Your task to perform on an android device: turn smart compose on in the gmail app Image 0: 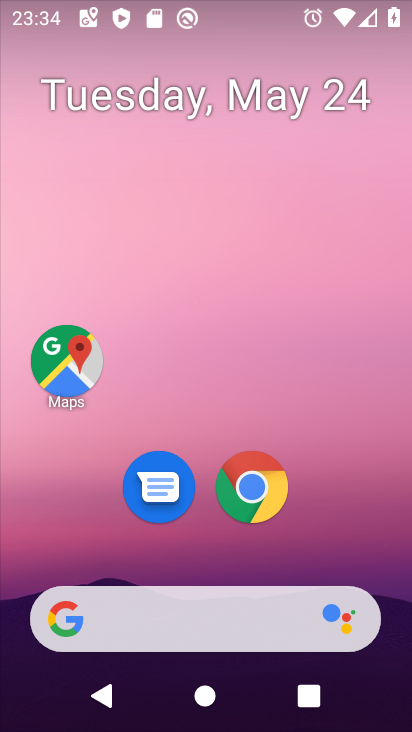
Step 0: drag from (157, 559) to (289, 4)
Your task to perform on an android device: turn smart compose on in the gmail app Image 1: 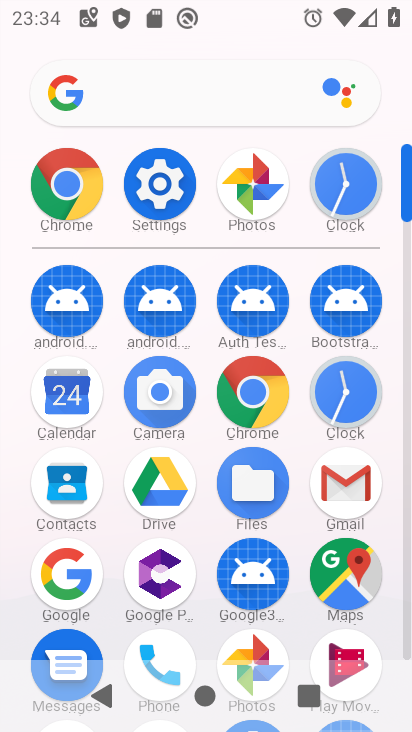
Step 1: click (344, 479)
Your task to perform on an android device: turn smart compose on in the gmail app Image 2: 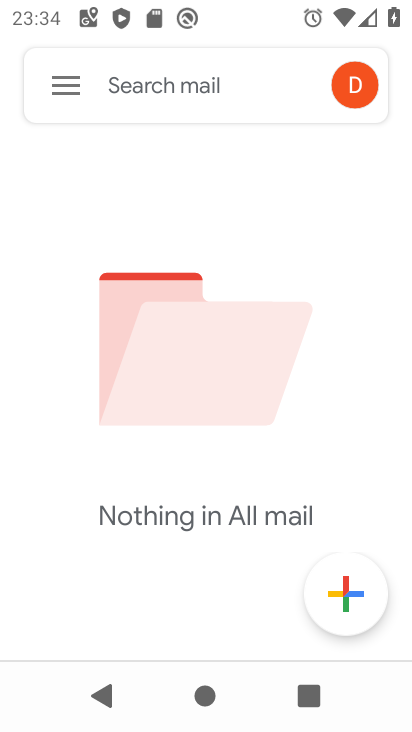
Step 2: click (57, 88)
Your task to perform on an android device: turn smart compose on in the gmail app Image 3: 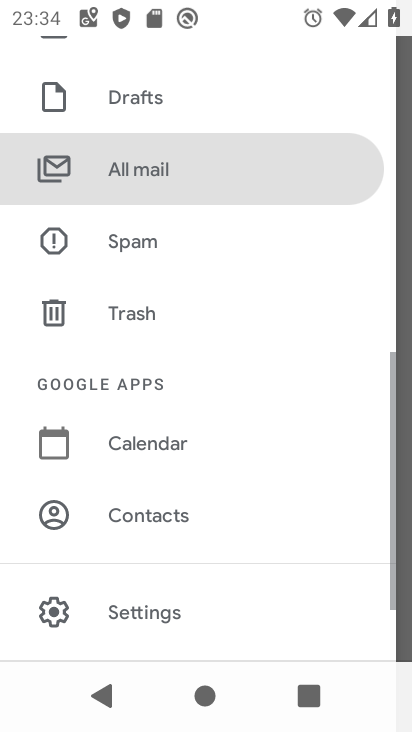
Step 3: click (151, 601)
Your task to perform on an android device: turn smart compose on in the gmail app Image 4: 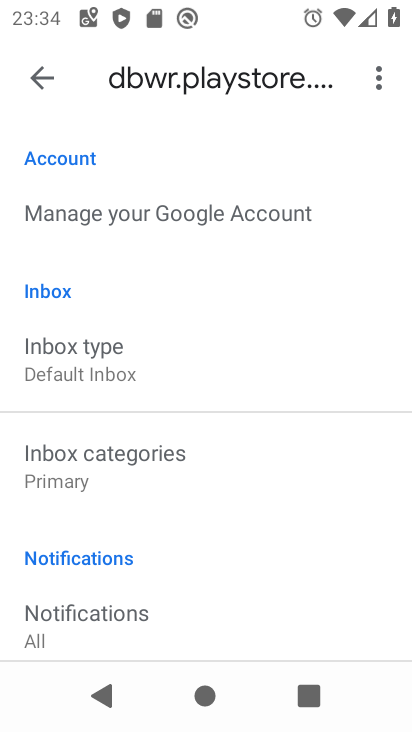
Step 4: task complete